Your task to perform on an android device: search for outdoor chairs on article.com Image 0: 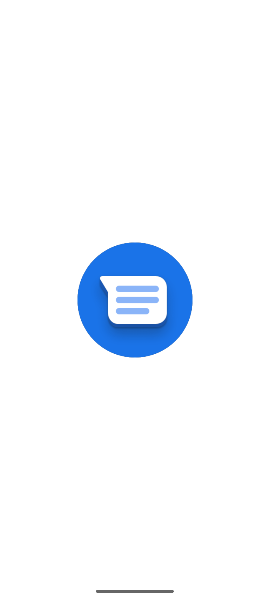
Step 0: press home button
Your task to perform on an android device: search for outdoor chairs on article.com Image 1: 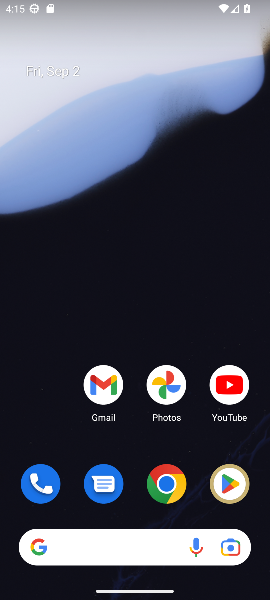
Step 1: click (170, 485)
Your task to perform on an android device: search for outdoor chairs on article.com Image 2: 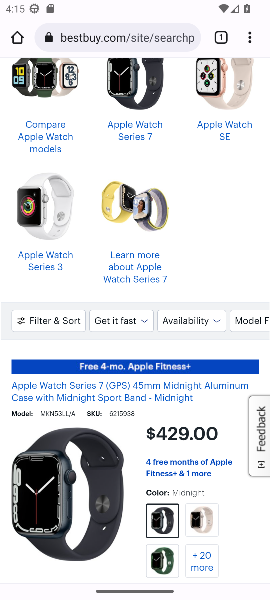
Step 2: click (121, 34)
Your task to perform on an android device: search for outdoor chairs on article.com Image 3: 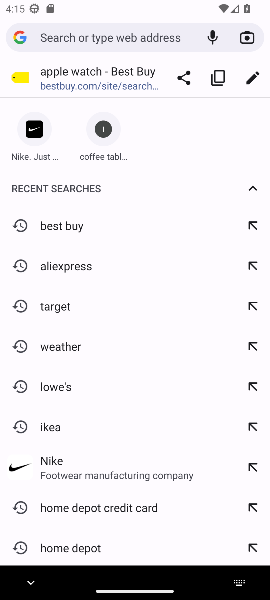
Step 3: press enter
Your task to perform on an android device: search for outdoor chairs on article.com Image 4: 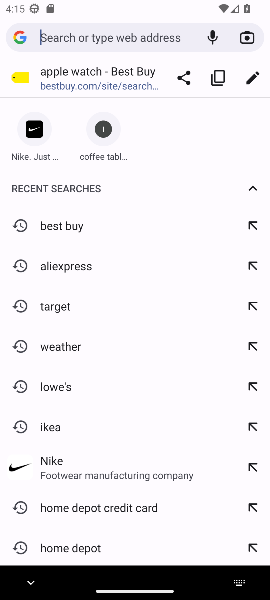
Step 4: type " article.com"
Your task to perform on an android device: search for outdoor chairs on article.com Image 5: 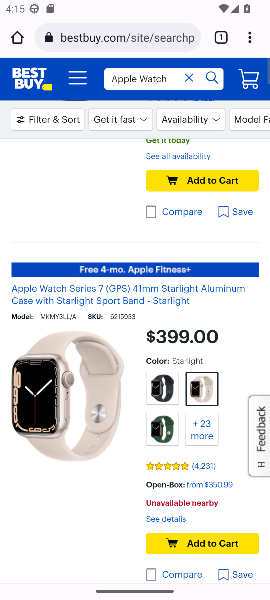
Step 5: click (151, 35)
Your task to perform on an android device: search for outdoor chairs on article.com Image 6: 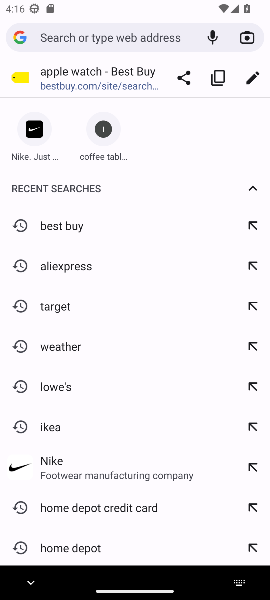
Step 6: type " article.com"
Your task to perform on an android device: search for outdoor chairs on article.com Image 7: 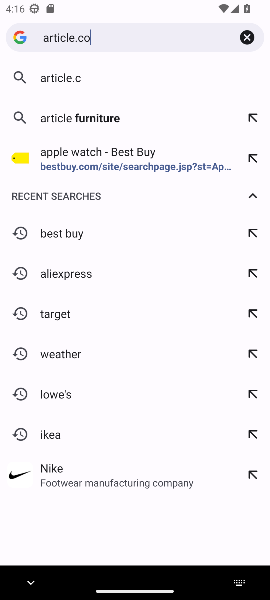
Step 7: press enter
Your task to perform on an android device: search for outdoor chairs on article.com Image 8: 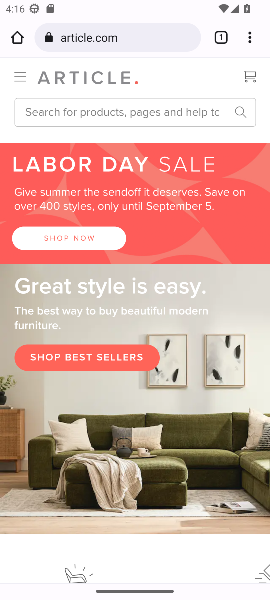
Step 8: click (204, 106)
Your task to perform on an android device: search for outdoor chairs on article.com Image 9: 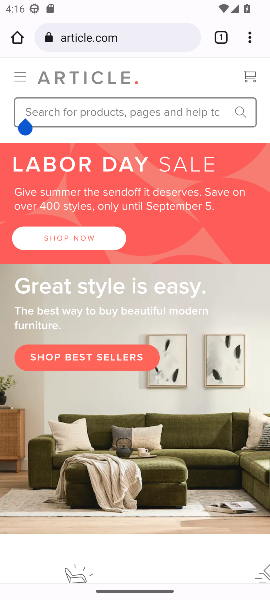
Step 9: type "outdoor chairs"
Your task to perform on an android device: search for outdoor chairs on article.com Image 10: 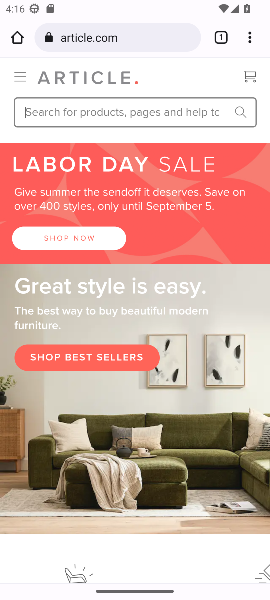
Step 10: press enter
Your task to perform on an android device: search for outdoor chairs on article.com Image 11: 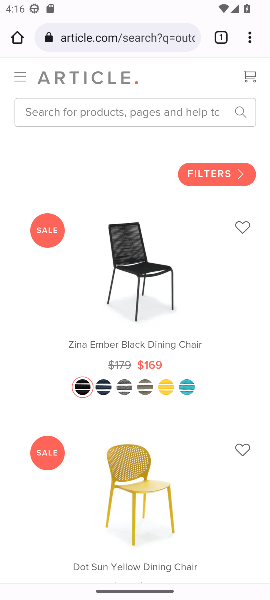
Step 11: task complete